Your task to perform on an android device: Check the weather Image 0: 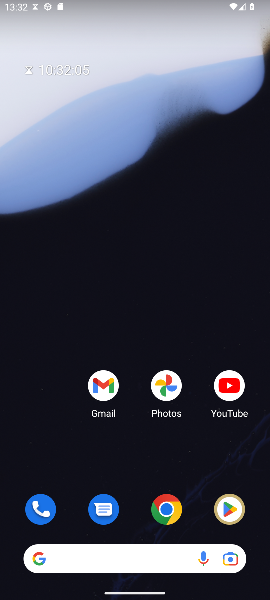
Step 0: press home button
Your task to perform on an android device: Check the weather Image 1: 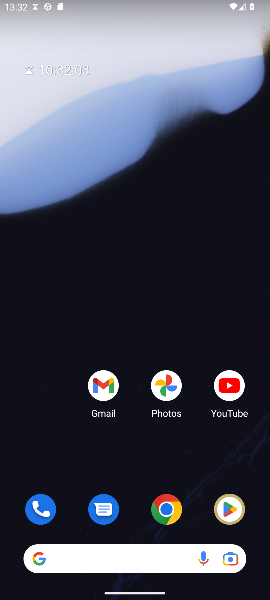
Step 1: drag from (136, 518) to (143, 134)
Your task to perform on an android device: Check the weather Image 2: 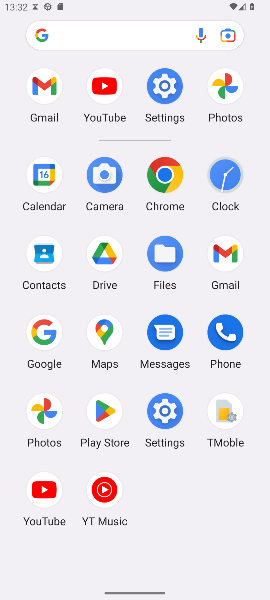
Step 2: click (36, 329)
Your task to perform on an android device: Check the weather Image 3: 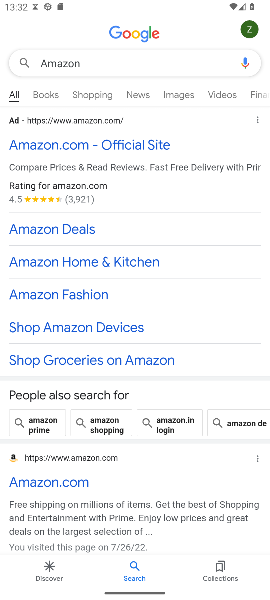
Step 3: click (95, 59)
Your task to perform on an android device: Check the weather Image 4: 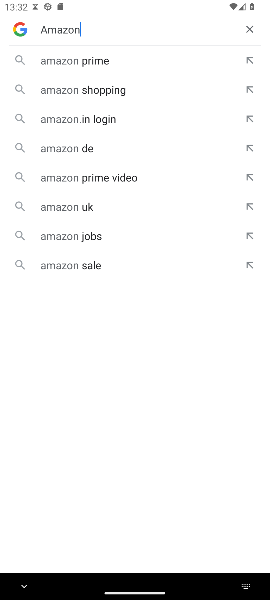
Step 4: click (249, 33)
Your task to perform on an android device: Check the weather Image 5: 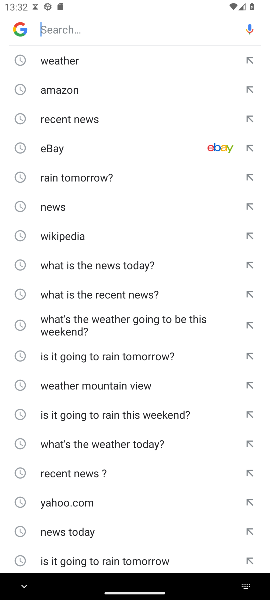
Step 5: type "weather"
Your task to perform on an android device: Check the weather Image 6: 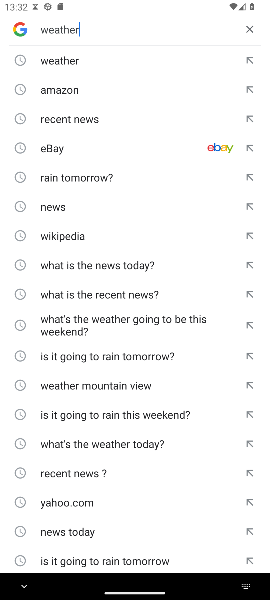
Step 6: press enter
Your task to perform on an android device: Check the weather Image 7: 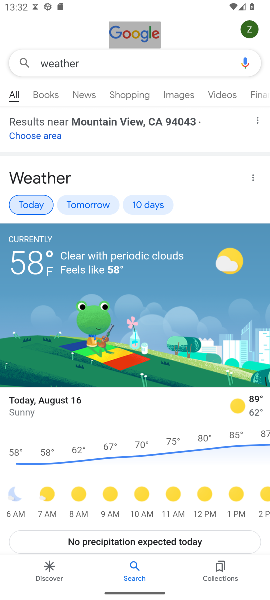
Step 7: task complete